Your task to perform on an android device: open app "DuckDuckGo Privacy Browser" Image 0: 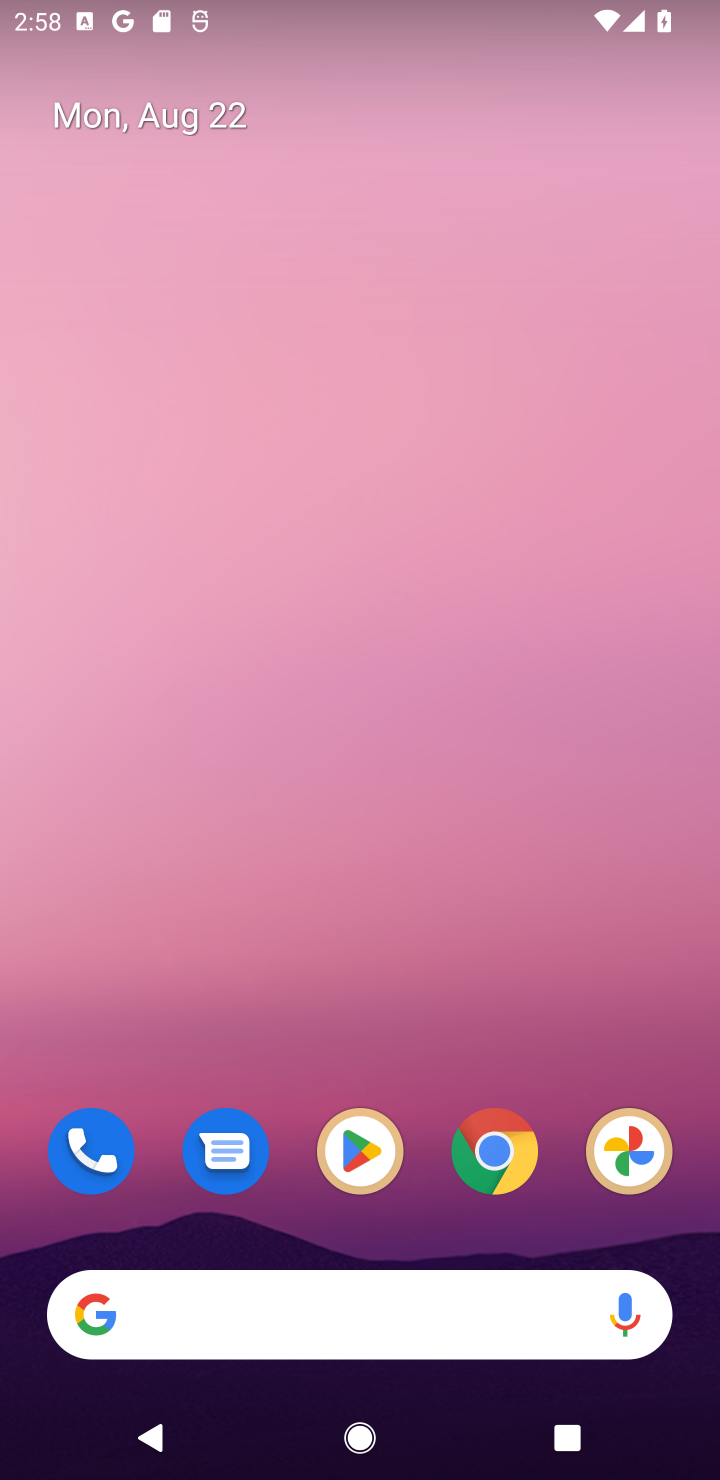
Step 0: click (361, 1139)
Your task to perform on an android device: open app "DuckDuckGo Privacy Browser" Image 1: 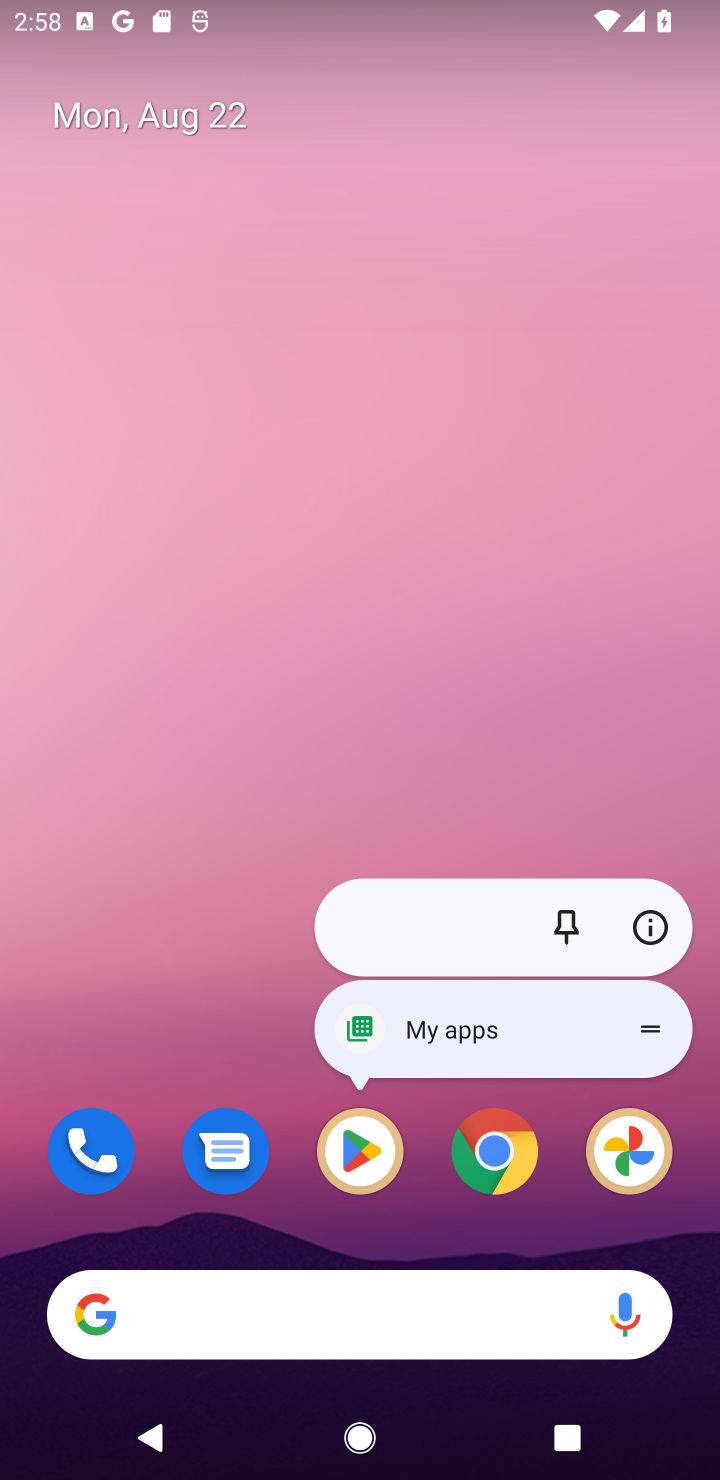
Step 1: click (345, 1158)
Your task to perform on an android device: open app "DuckDuckGo Privacy Browser" Image 2: 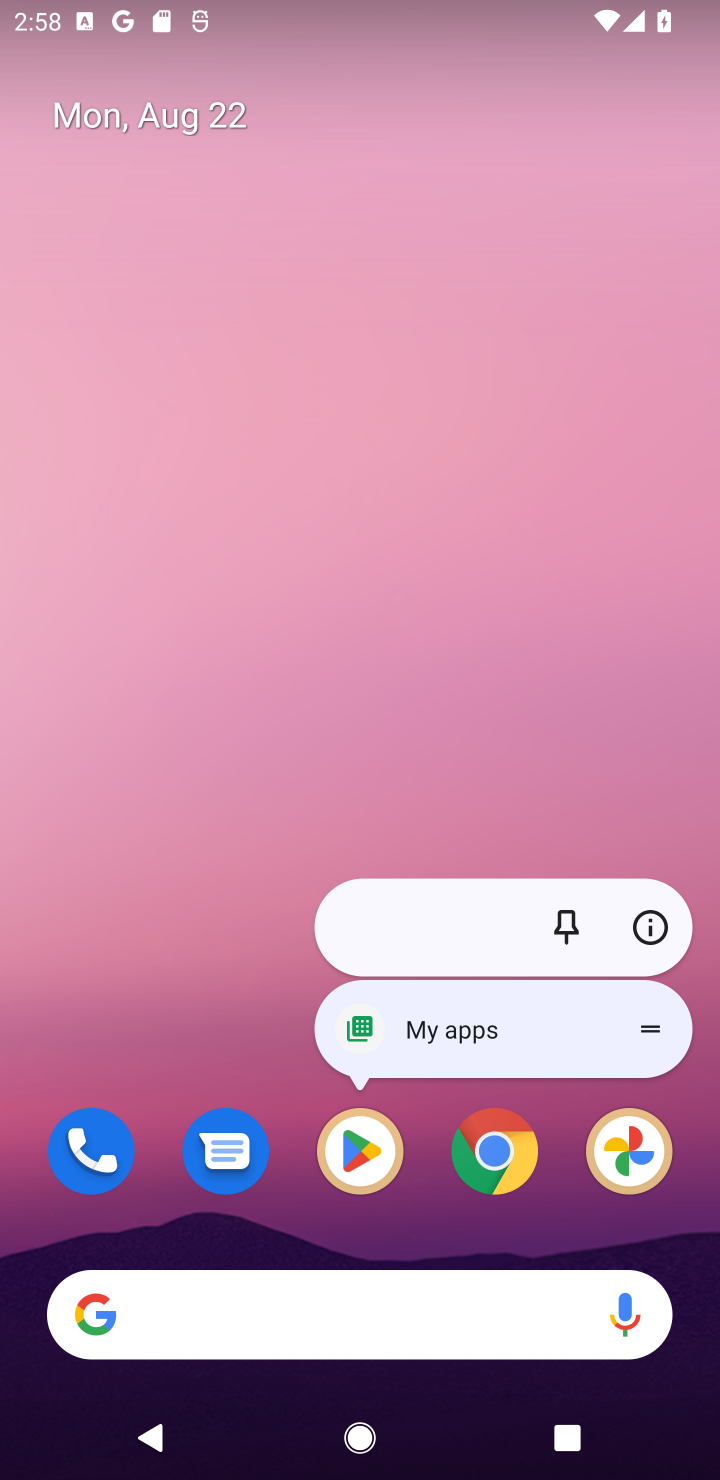
Step 2: click (345, 1171)
Your task to perform on an android device: open app "DuckDuckGo Privacy Browser" Image 3: 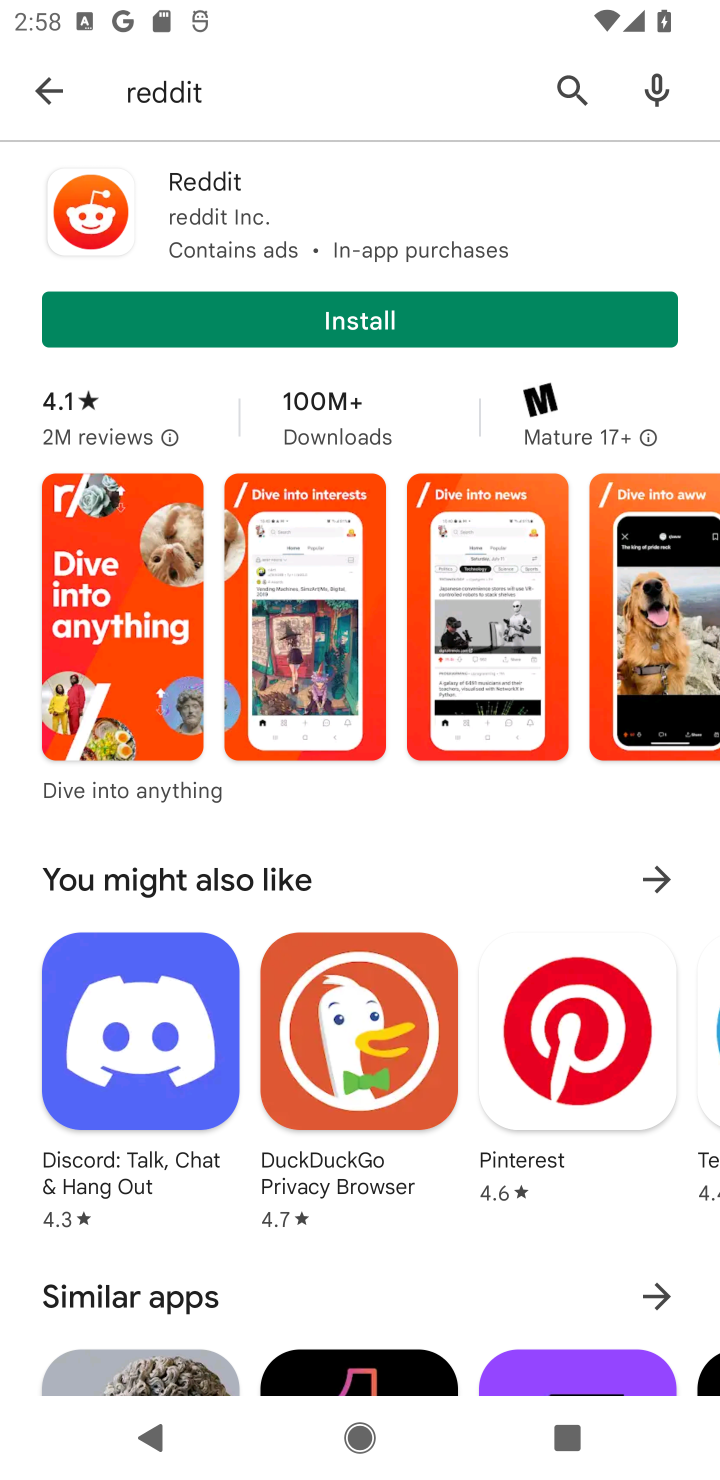
Step 3: click (567, 78)
Your task to perform on an android device: open app "DuckDuckGo Privacy Browser" Image 4: 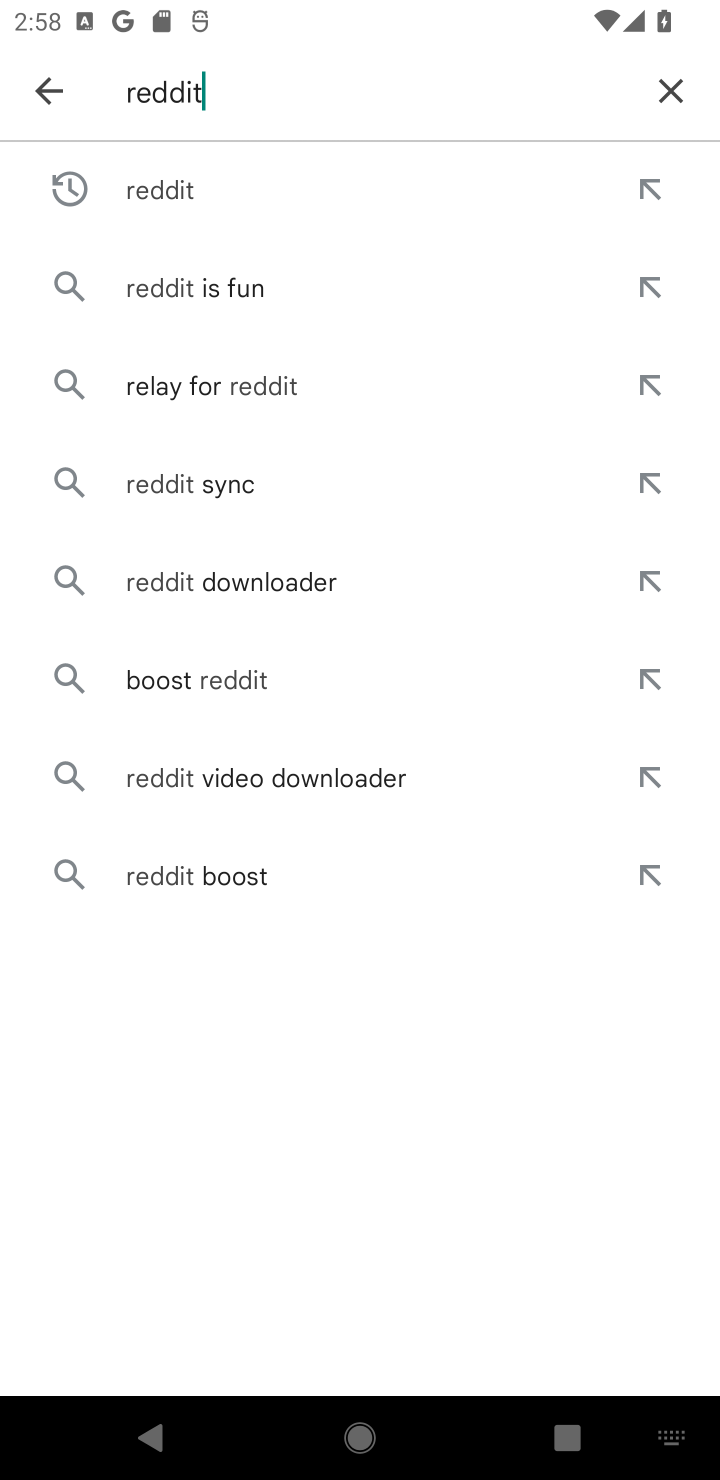
Step 4: click (673, 87)
Your task to perform on an android device: open app "DuckDuckGo Privacy Browser" Image 5: 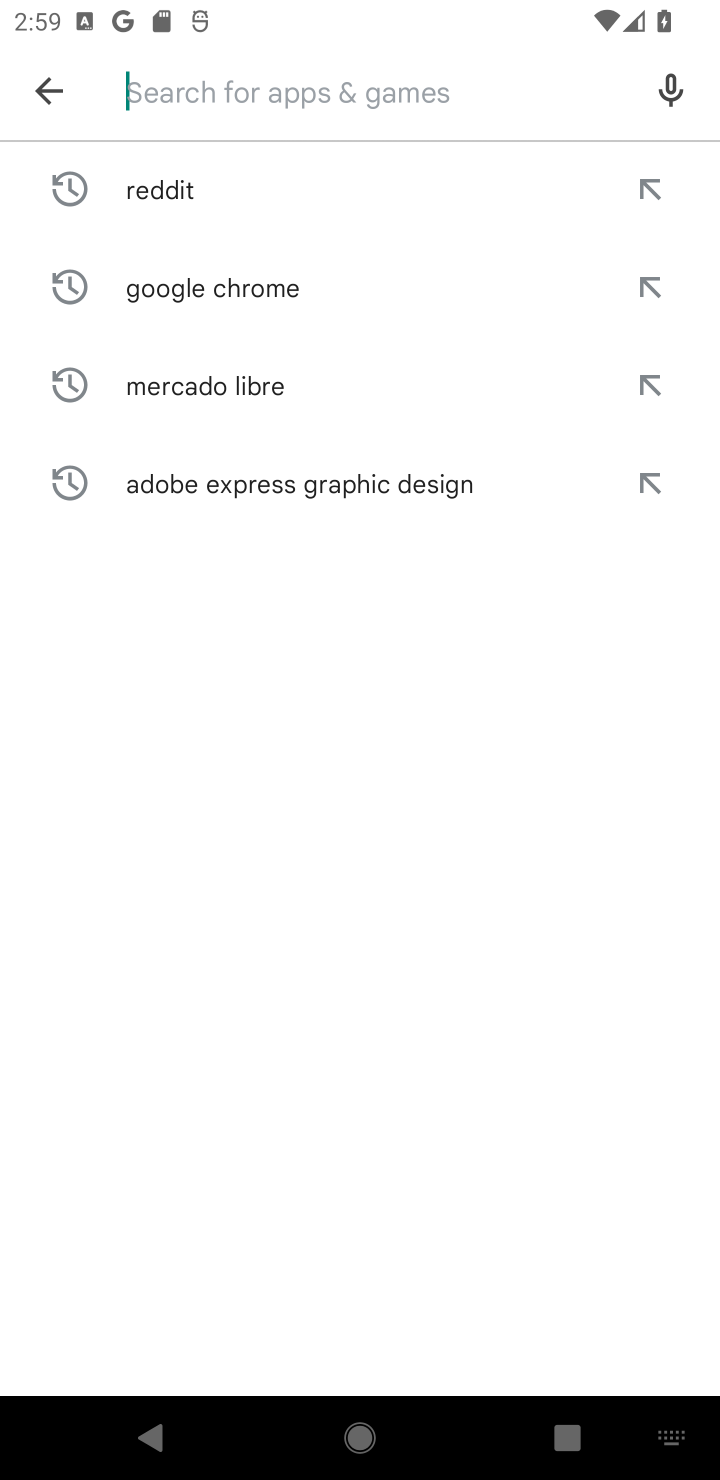
Step 5: type "DuckDuckGo Privacy Browser"
Your task to perform on an android device: open app "DuckDuckGo Privacy Browser" Image 6: 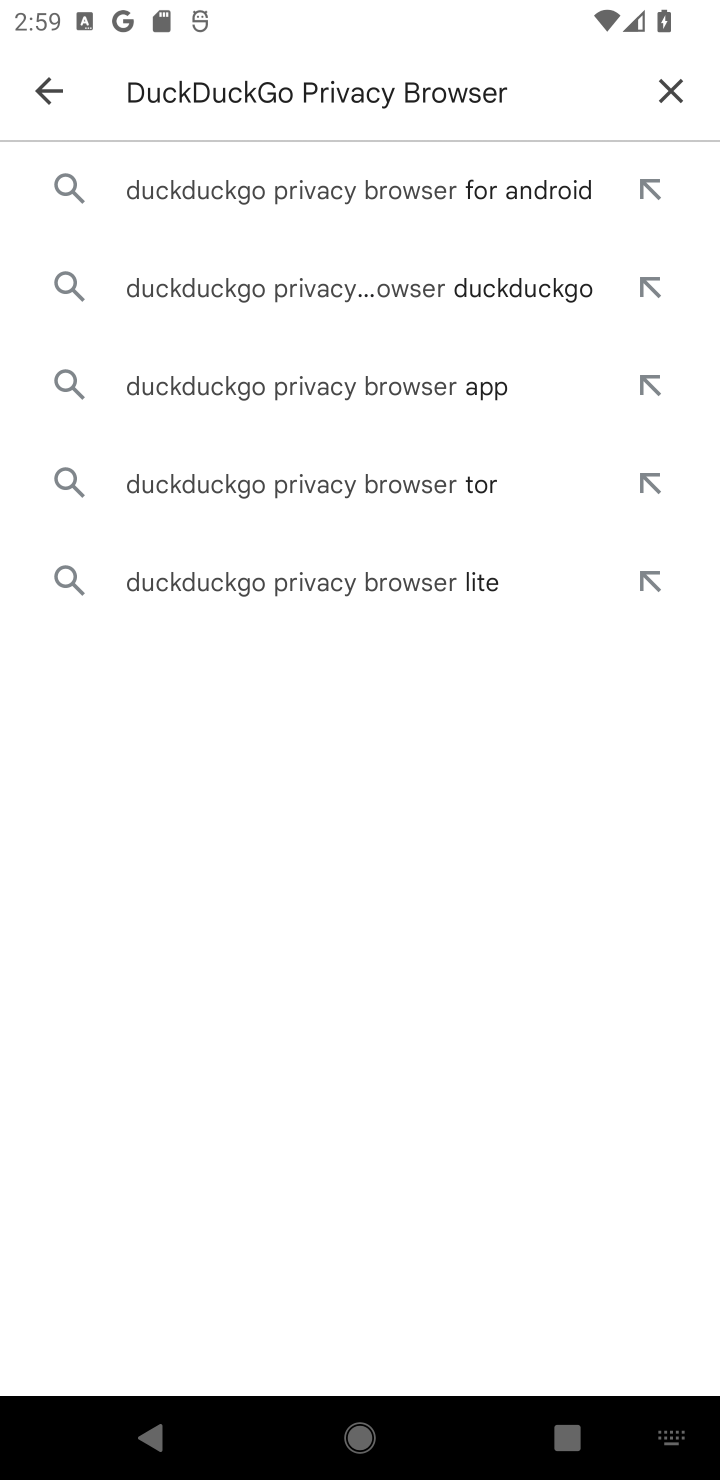
Step 6: click (401, 196)
Your task to perform on an android device: open app "DuckDuckGo Privacy Browser" Image 7: 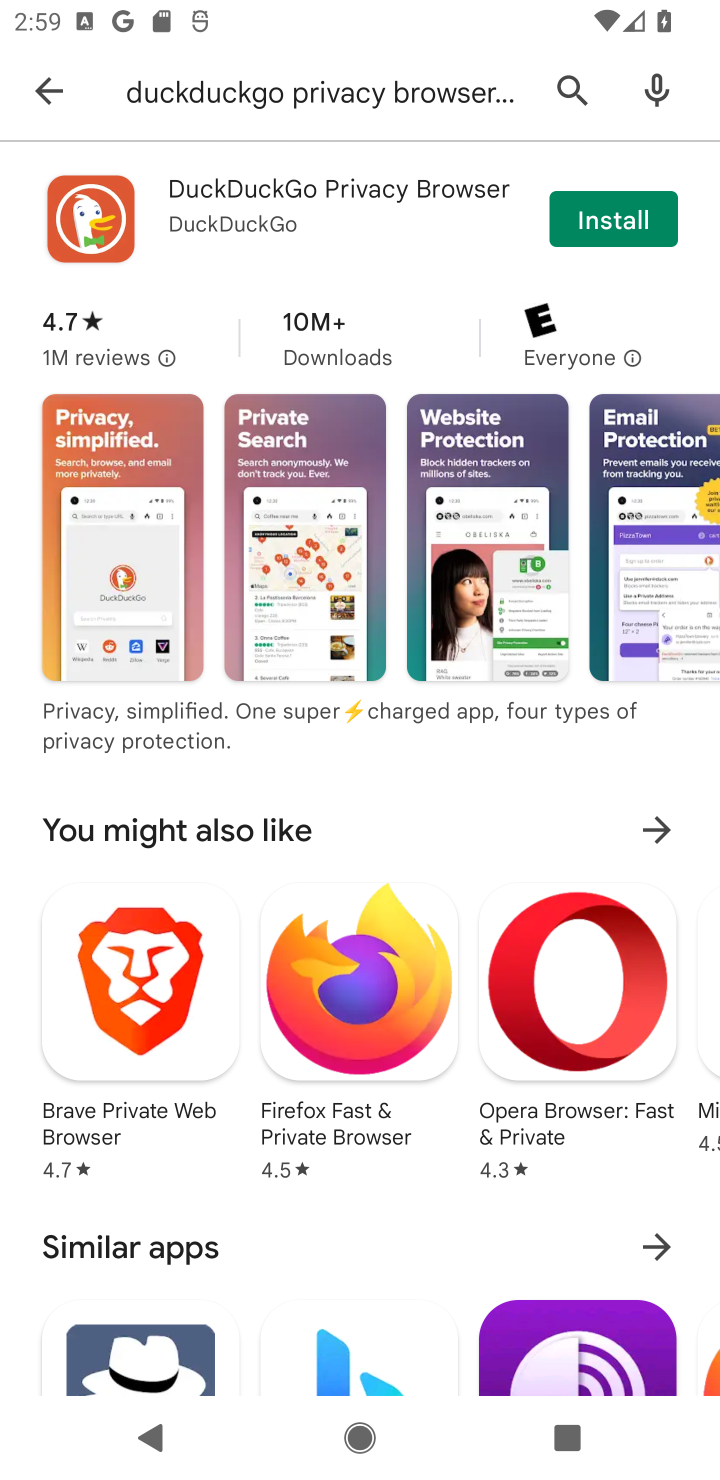
Step 7: task complete